Your task to perform on an android device: set the stopwatch Image 0: 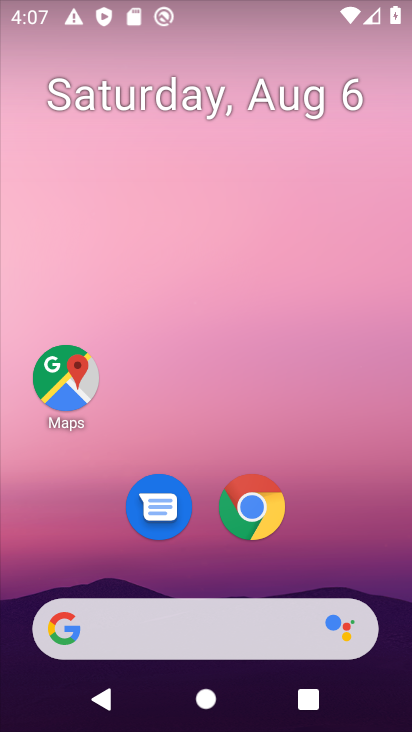
Step 0: drag from (221, 433) to (243, 49)
Your task to perform on an android device: set the stopwatch Image 1: 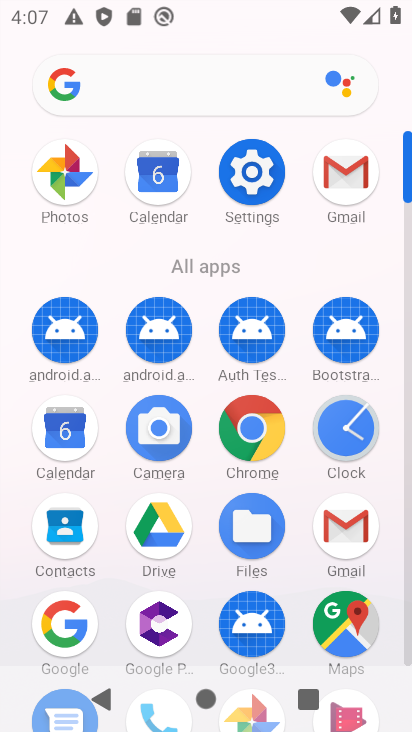
Step 1: drag from (203, 600) to (261, 359)
Your task to perform on an android device: set the stopwatch Image 2: 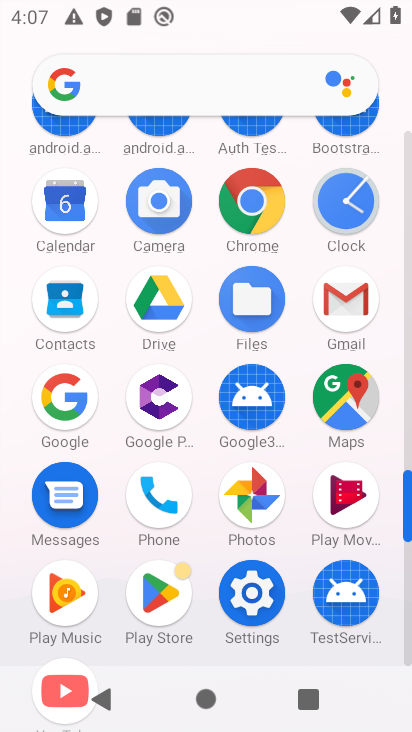
Step 2: drag from (243, 318) to (298, 469)
Your task to perform on an android device: set the stopwatch Image 3: 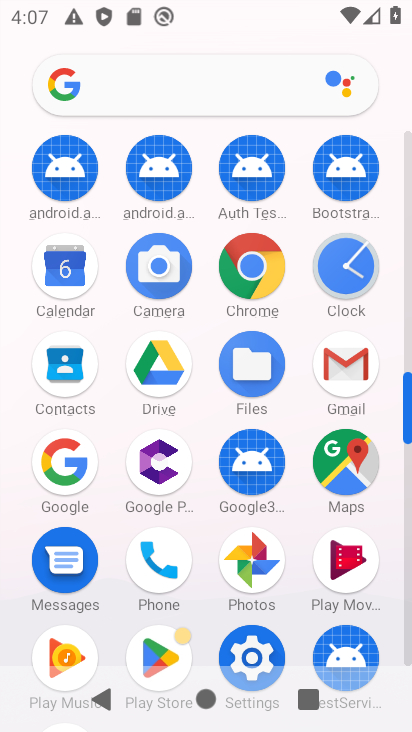
Step 3: click (346, 278)
Your task to perform on an android device: set the stopwatch Image 4: 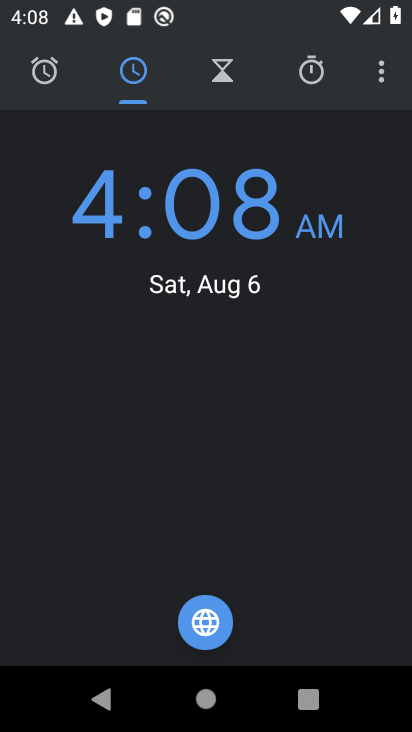
Step 4: task complete